Your task to perform on an android device: clear all cookies in the chrome app Image 0: 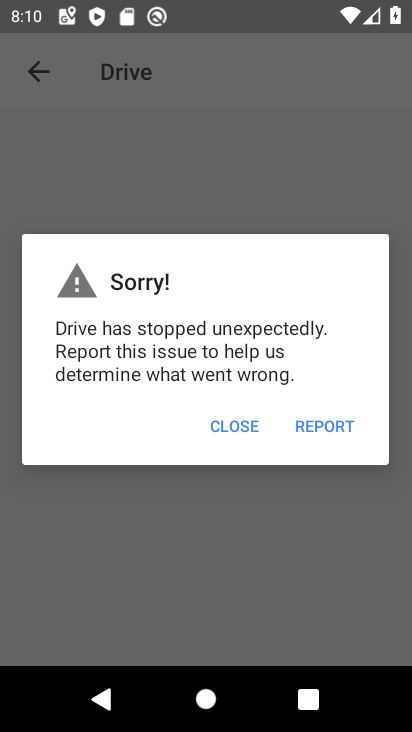
Step 0: press home button
Your task to perform on an android device: clear all cookies in the chrome app Image 1: 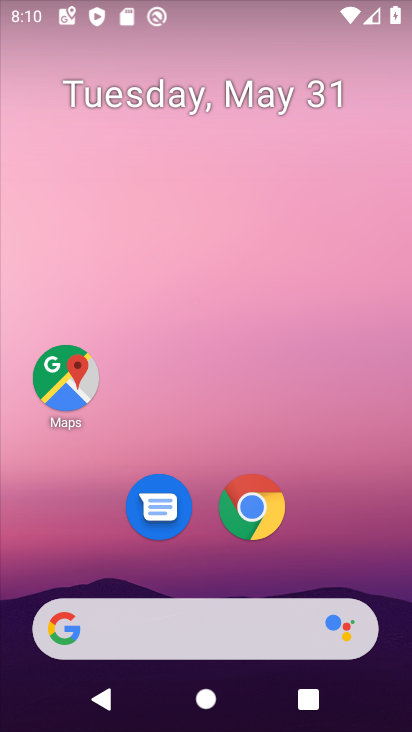
Step 1: click (258, 510)
Your task to perform on an android device: clear all cookies in the chrome app Image 2: 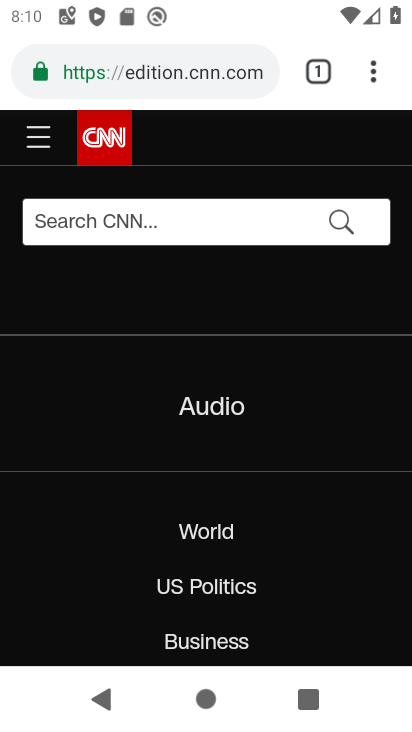
Step 2: drag from (385, 65) to (232, 420)
Your task to perform on an android device: clear all cookies in the chrome app Image 3: 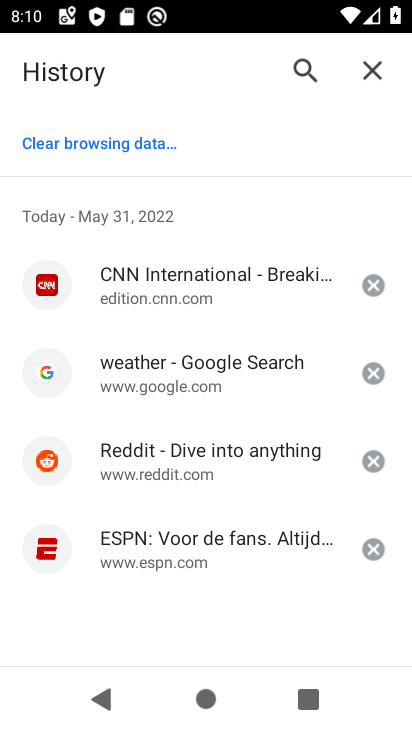
Step 3: click (109, 146)
Your task to perform on an android device: clear all cookies in the chrome app Image 4: 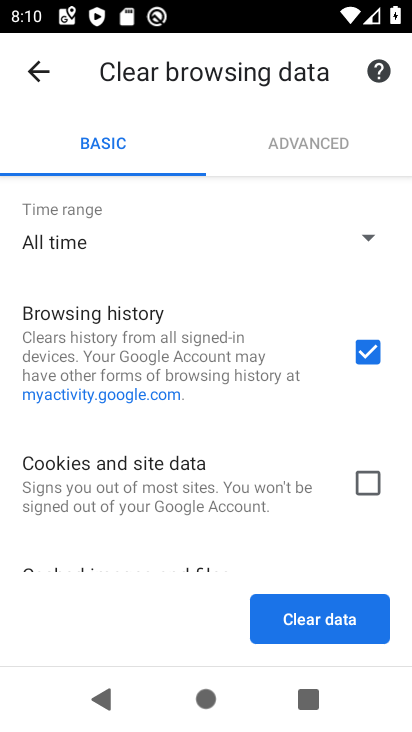
Step 4: click (381, 488)
Your task to perform on an android device: clear all cookies in the chrome app Image 5: 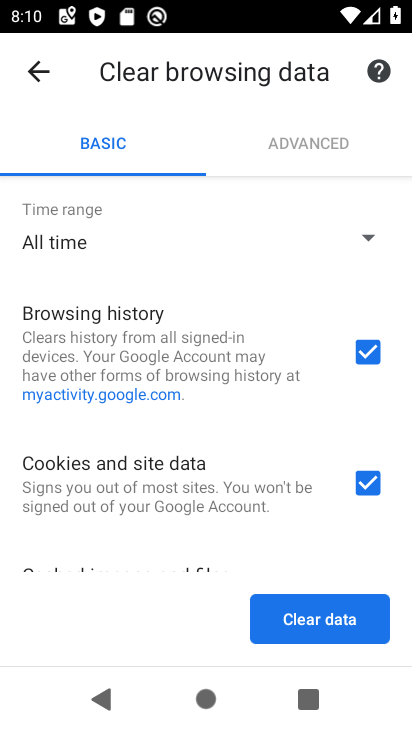
Step 5: click (324, 613)
Your task to perform on an android device: clear all cookies in the chrome app Image 6: 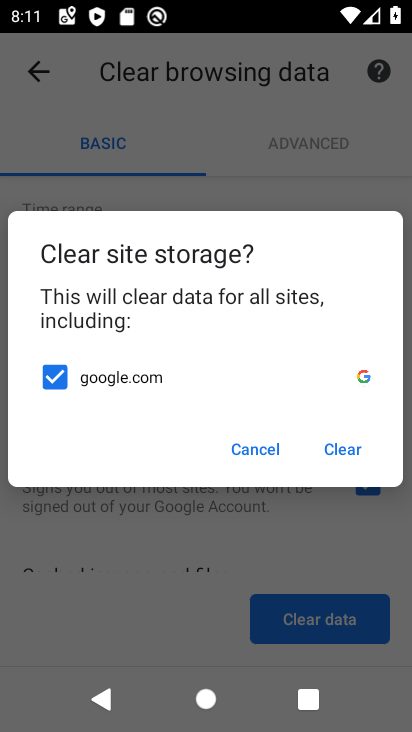
Step 6: click (342, 452)
Your task to perform on an android device: clear all cookies in the chrome app Image 7: 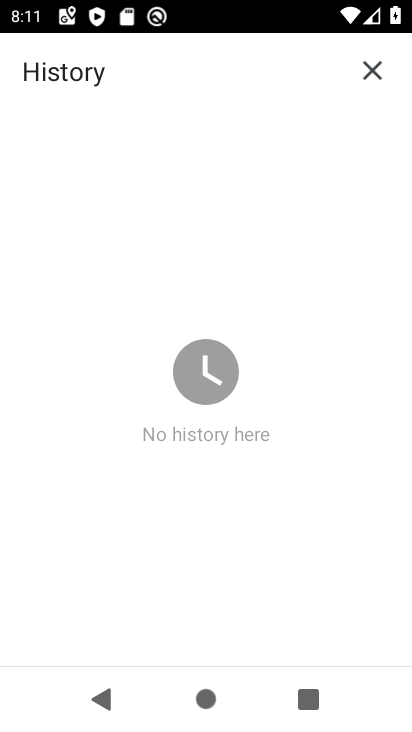
Step 7: task complete